Your task to perform on an android device: Open Youtube and go to "Your channel" Image 0: 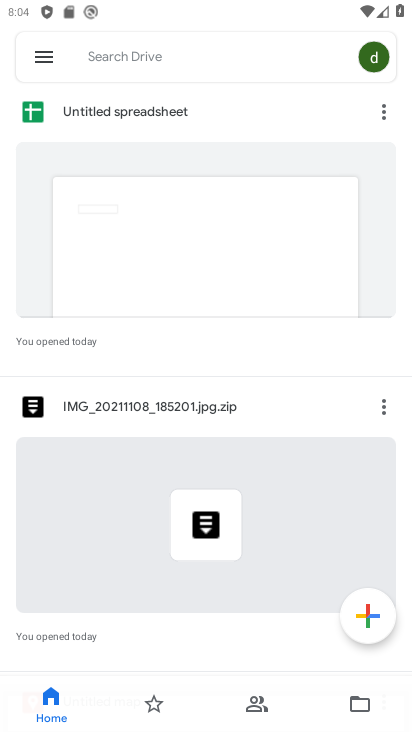
Step 0: press home button
Your task to perform on an android device: Open Youtube and go to "Your channel" Image 1: 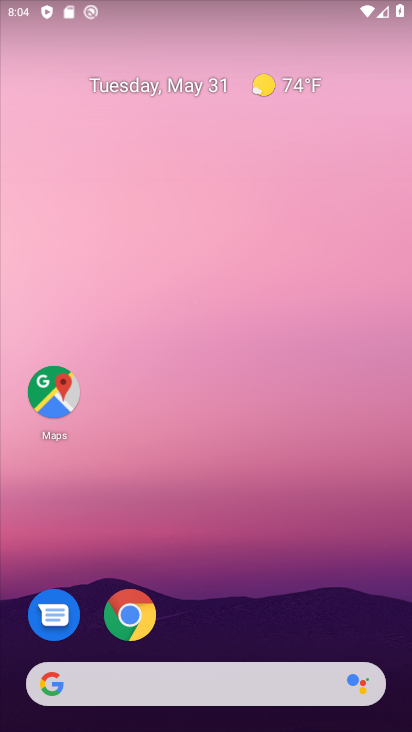
Step 1: drag from (179, 682) to (317, 83)
Your task to perform on an android device: Open Youtube and go to "Your channel" Image 2: 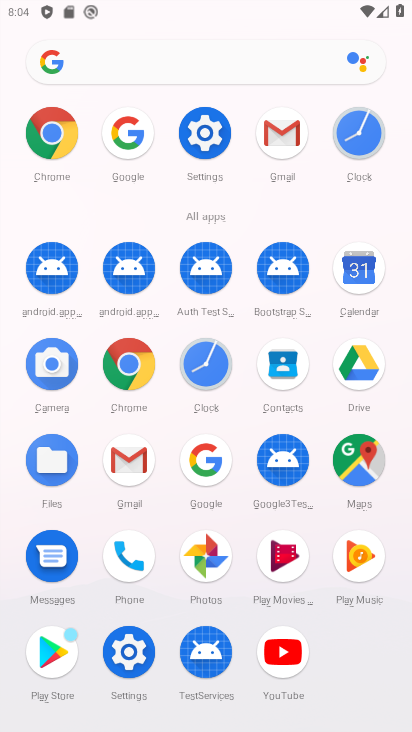
Step 2: click (290, 652)
Your task to perform on an android device: Open Youtube and go to "Your channel" Image 3: 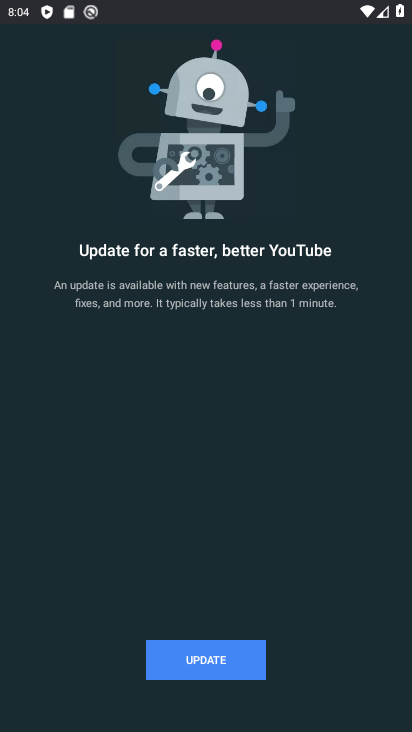
Step 3: click (206, 655)
Your task to perform on an android device: Open Youtube and go to "Your channel" Image 4: 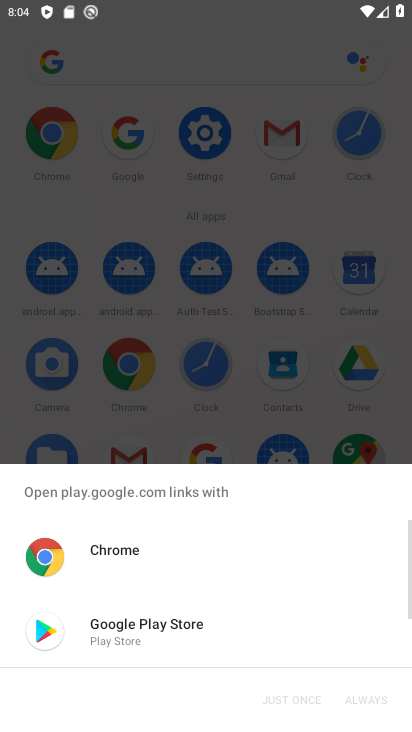
Step 4: click (142, 628)
Your task to perform on an android device: Open Youtube and go to "Your channel" Image 5: 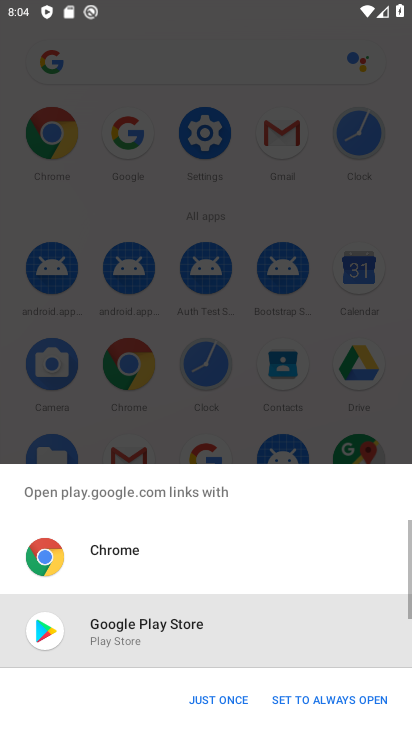
Step 5: click (222, 703)
Your task to perform on an android device: Open Youtube and go to "Your channel" Image 6: 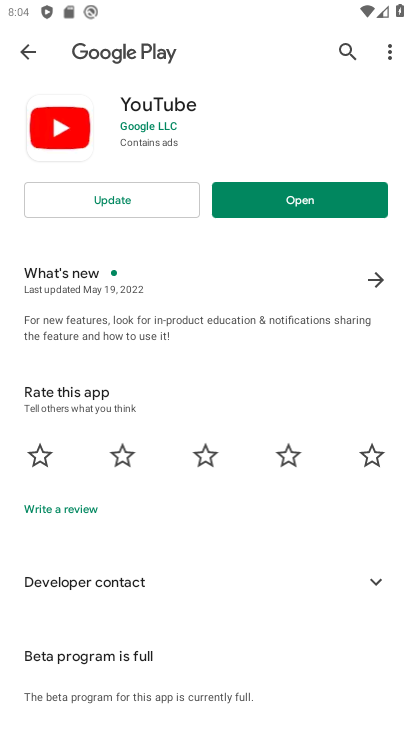
Step 6: click (121, 200)
Your task to perform on an android device: Open Youtube and go to "Your channel" Image 7: 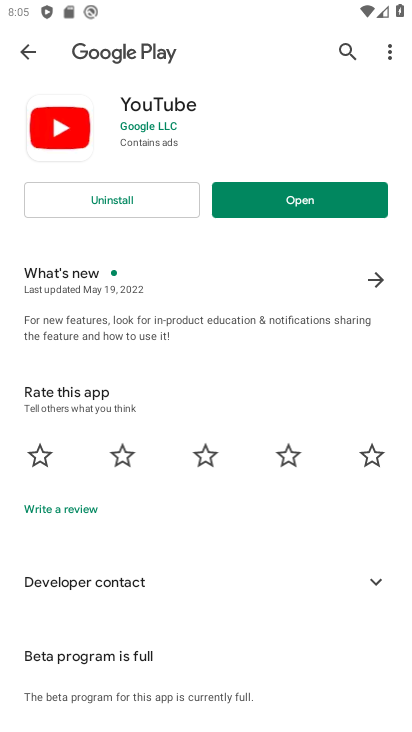
Step 7: click (316, 203)
Your task to perform on an android device: Open Youtube and go to "Your channel" Image 8: 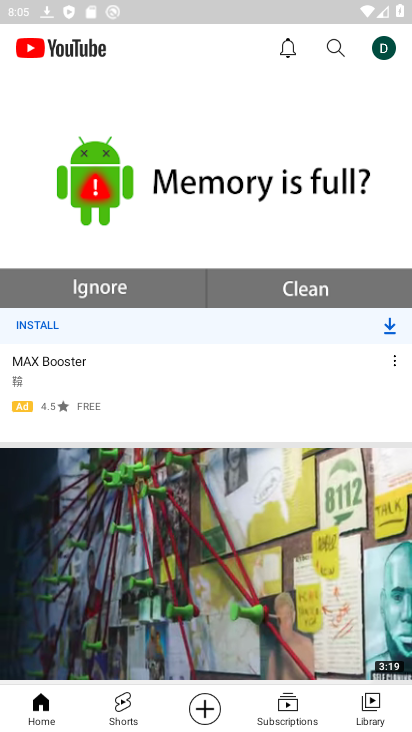
Step 8: click (383, 44)
Your task to perform on an android device: Open Youtube and go to "Your channel" Image 9: 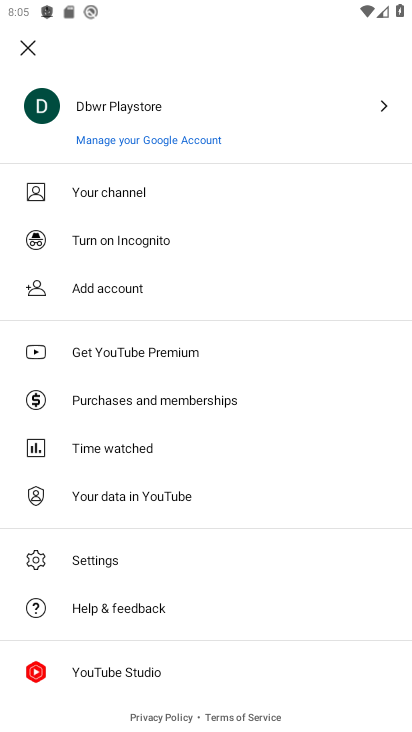
Step 9: click (106, 185)
Your task to perform on an android device: Open Youtube and go to "Your channel" Image 10: 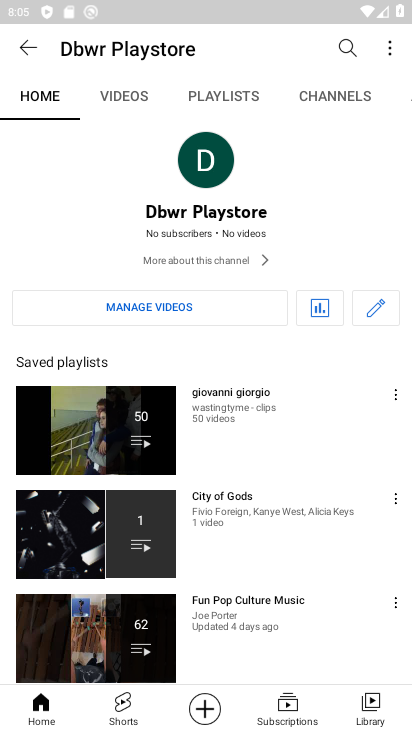
Step 10: task complete